Your task to perform on an android device: What's the weather going to be tomorrow? Image 0: 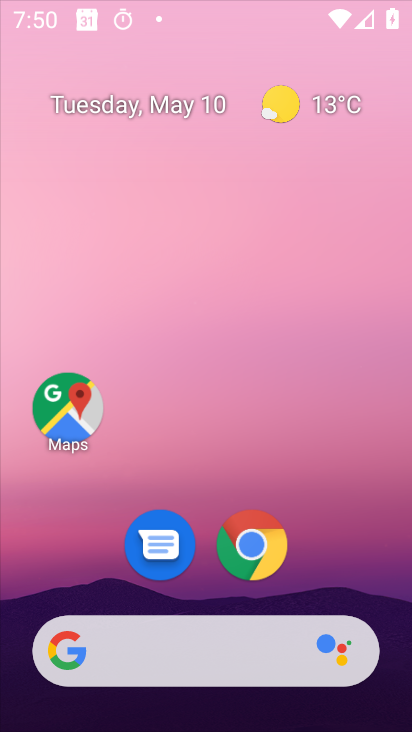
Step 0: press home button
Your task to perform on an android device: What's the weather going to be tomorrow? Image 1: 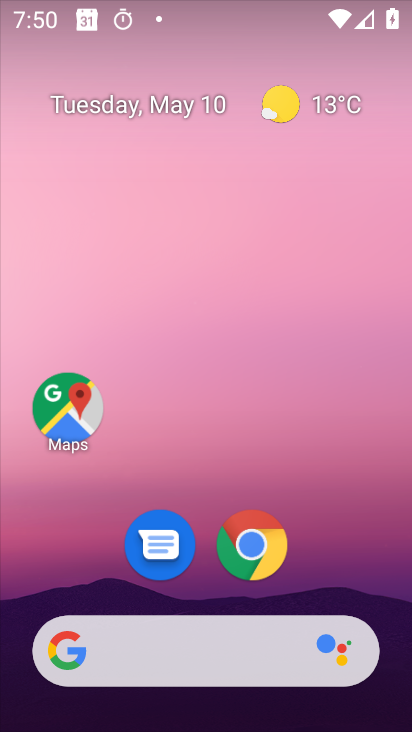
Step 1: drag from (210, 598) to (216, 135)
Your task to perform on an android device: What's the weather going to be tomorrow? Image 2: 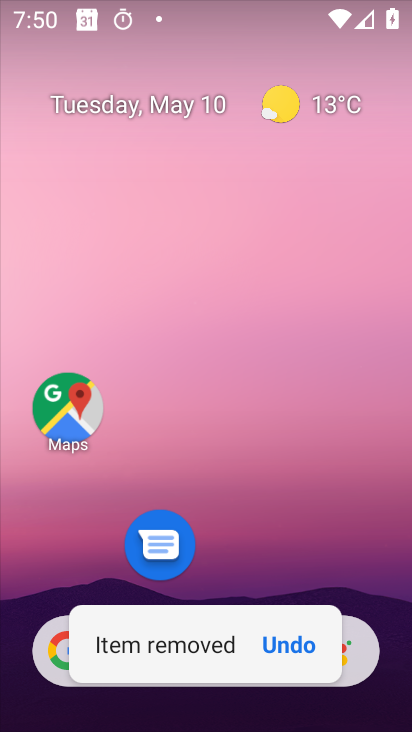
Step 2: click (296, 641)
Your task to perform on an android device: What's the weather going to be tomorrow? Image 3: 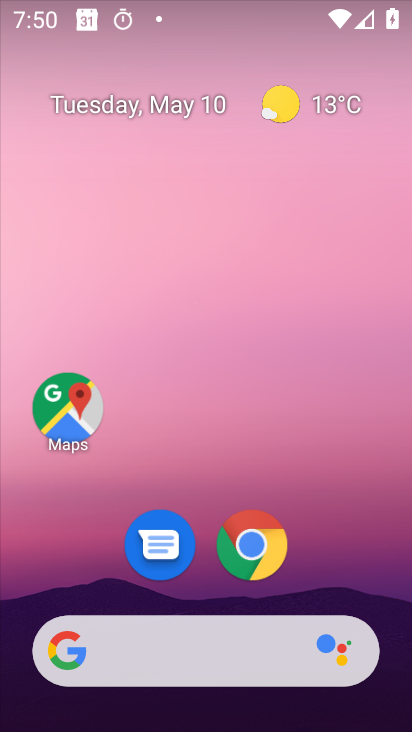
Step 3: click (331, 100)
Your task to perform on an android device: What's the weather going to be tomorrow? Image 4: 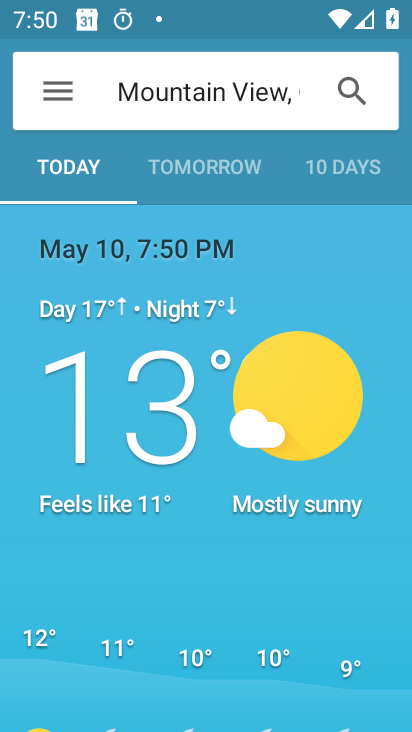
Step 4: drag from (194, 638) to (191, 247)
Your task to perform on an android device: What's the weather going to be tomorrow? Image 5: 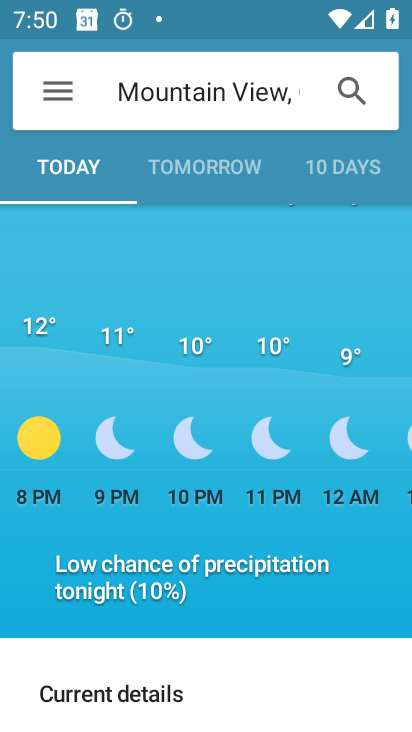
Step 5: drag from (319, 466) to (41, 453)
Your task to perform on an android device: What's the weather going to be tomorrow? Image 6: 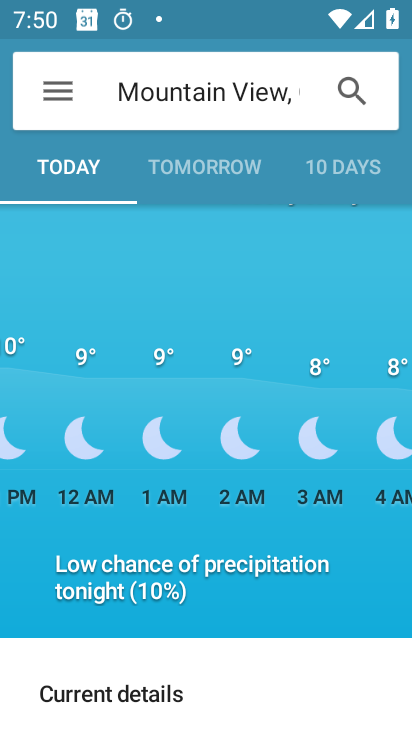
Step 6: drag from (365, 451) to (21, 452)
Your task to perform on an android device: What's the weather going to be tomorrow? Image 7: 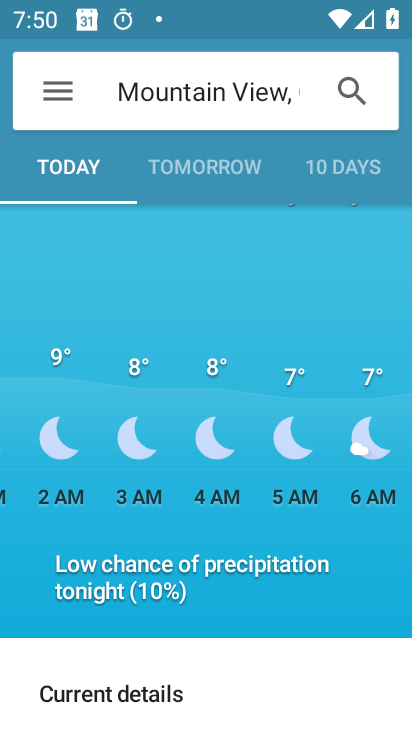
Step 7: click (188, 171)
Your task to perform on an android device: What's the weather going to be tomorrow? Image 8: 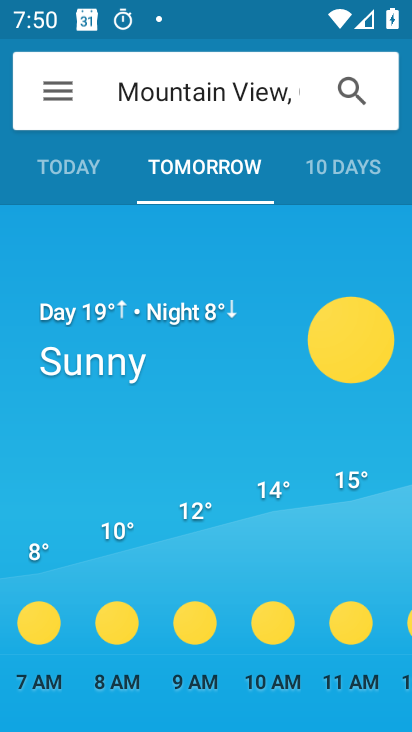
Step 8: task complete